Your task to perform on an android device: turn off javascript in the chrome app Image 0: 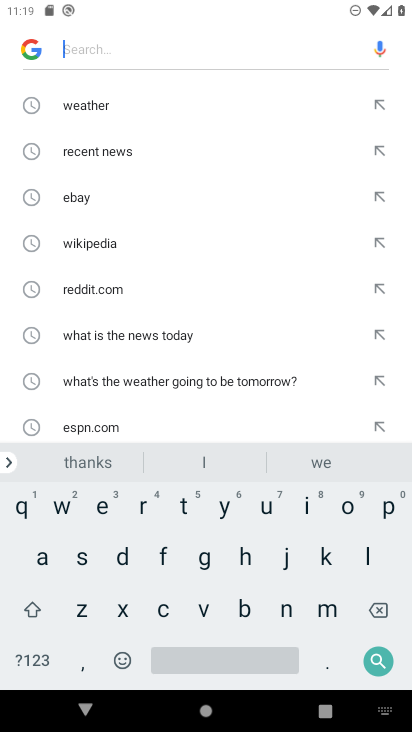
Step 0: press home button
Your task to perform on an android device: turn off javascript in the chrome app Image 1: 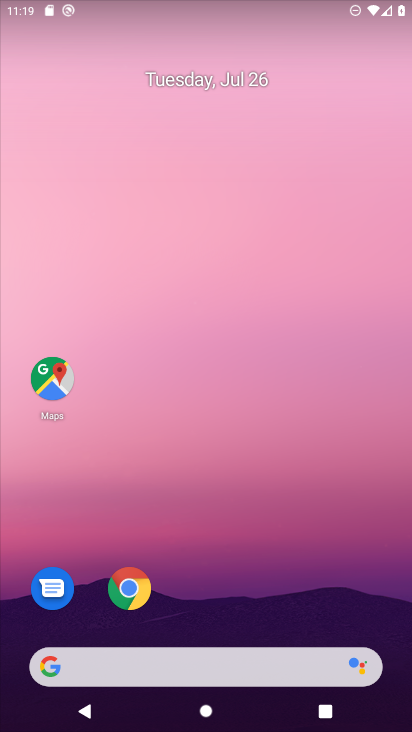
Step 1: click (157, 581)
Your task to perform on an android device: turn off javascript in the chrome app Image 2: 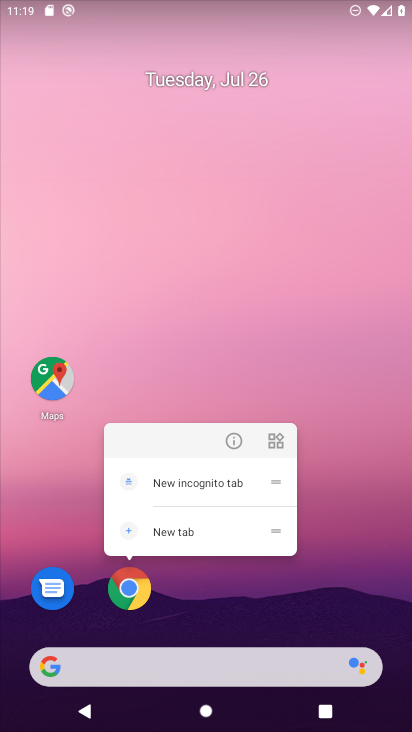
Step 2: click (144, 588)
Your task to perform on an android device: turn off javascript in the chrome app Image 3: 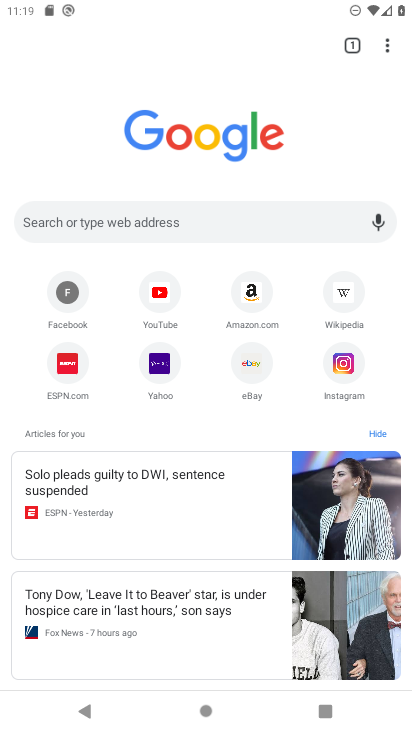
Step 3: click (383, 50)
Your task to perform on an android device: turn off javascript in the chrome app Image 4: 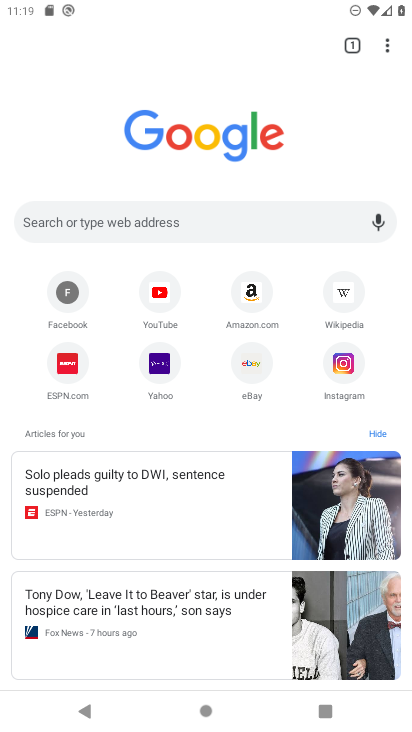
Step 4: click (391, 44)
Your task to perform on an android device: turn off javascript in the chrome app Image 5: 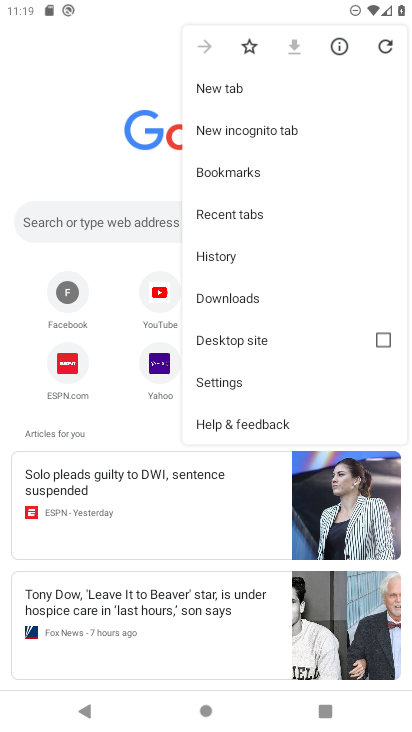
Step 5: click (223, 378)
Your task to perform on an android device: turn off javascript in the chrome app Image 6: 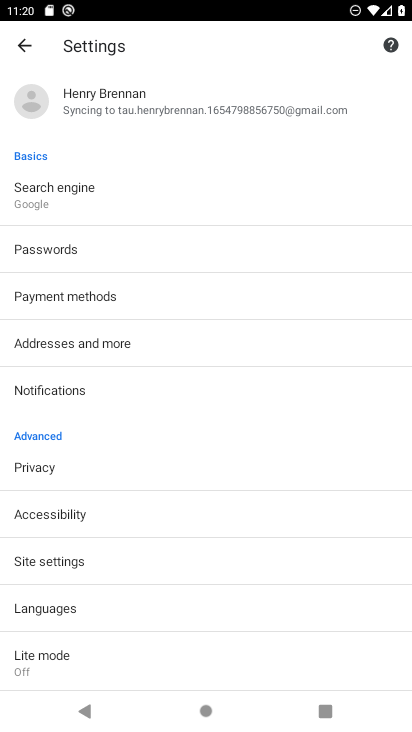
Step 6: click (65, 564)
Your task to perform on an android device: turn off javascript in the chrome app Image 7: 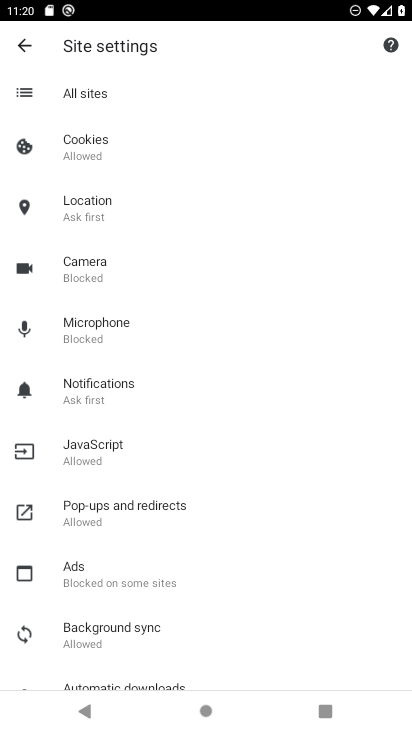
Step 7: click (82, 455)
Your task to perform on an android device: turn off javascript in the chrome app Image 8: 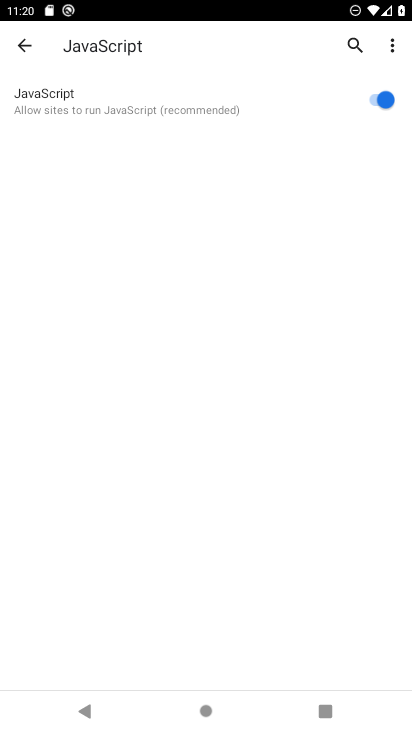
Step 8: click (375, 91)
Your task to perform on an android device: turn off javascript in the chrome app Image 9: 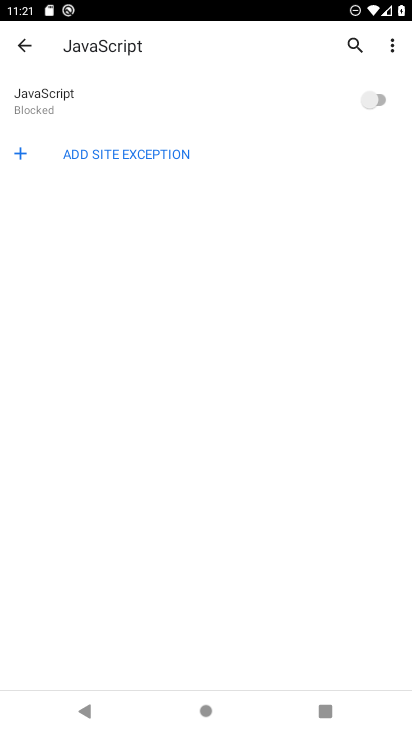
Step 9: task complete